Your task to perform on an android device: delete a single message in the gmail app Image 0: 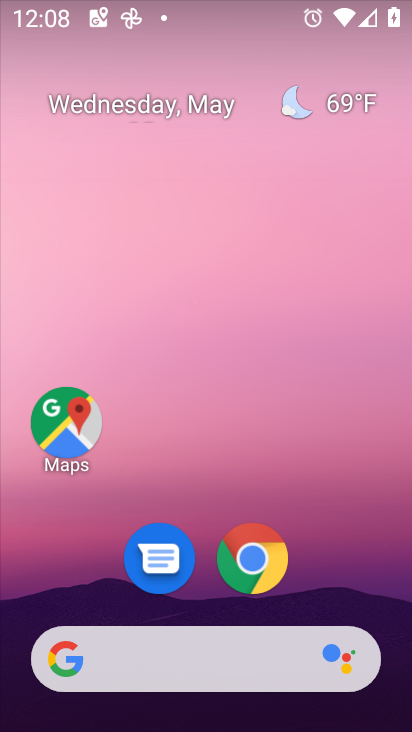
Step 0: drag from (383, 640) to (345, 28)
Your task to perform on an android device: delete a single message in the gmail app Image 1: 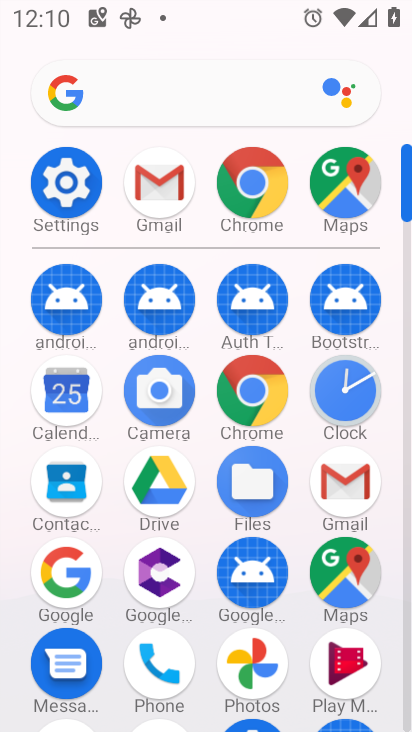
Step 1: click (315, 489)
Your task to perform on an android device: delete a single message in the gmail app Image 2: 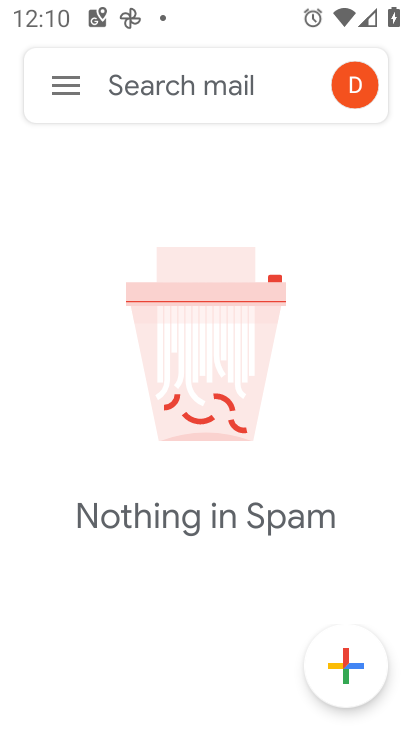
Step 2: task complete